Your task to perform on an android device: Open Yahoo.com Image 0: 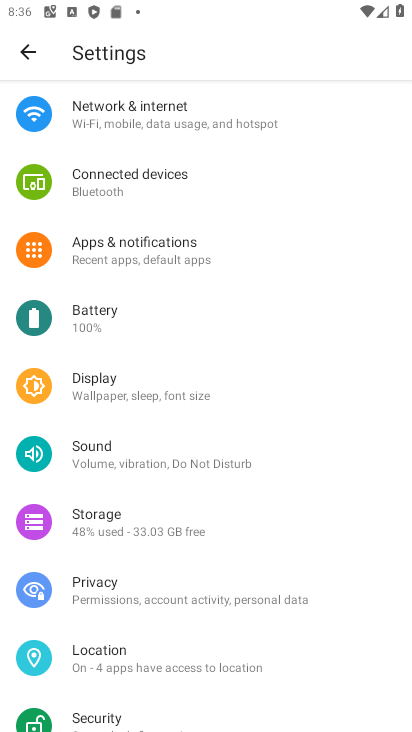
Step 0: press home button
Your task to perform on an android device: Open Yahoo.com Image 1: 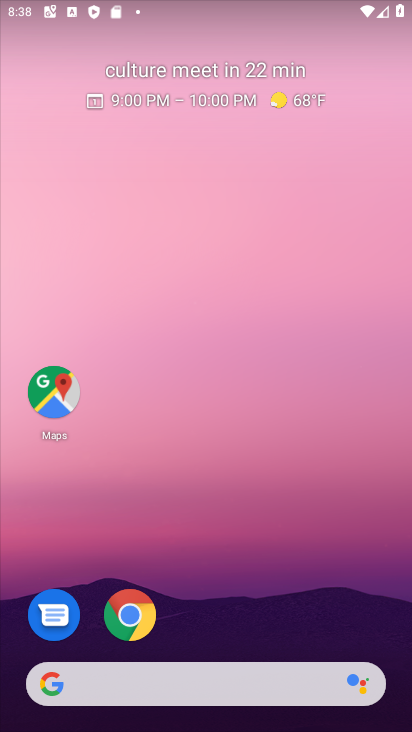
Step 1: click (116, 612)
Your task to perform on an android device: Open Yahoo.com Image 2: 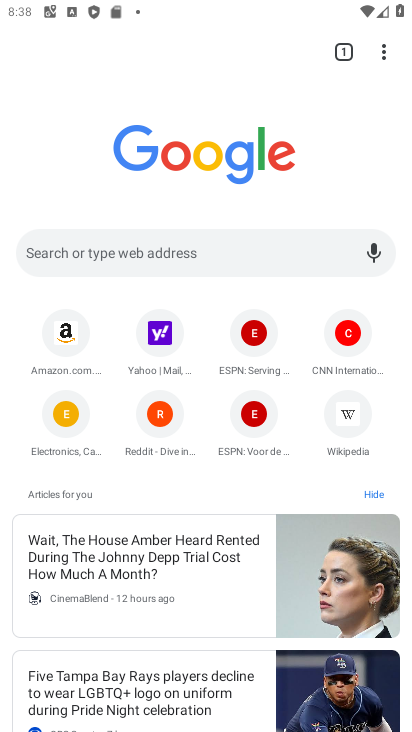
Step 2: click (205, 257)
Your task to perform on an android device: Open Yahoo.com Image 3: 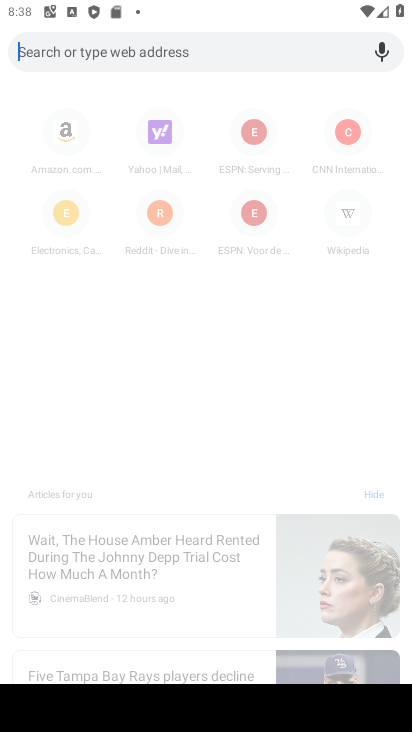
Step 3: type "Yahoo.com"
Your task to perform on an android device: Open Yahoo.com Image 4: 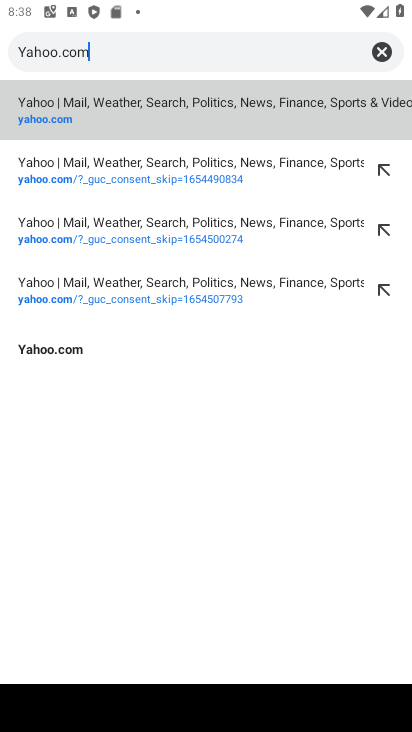
Step 4: click (49, 341)
Your task to perform on an android device: Open Yahoo.com Image 5: 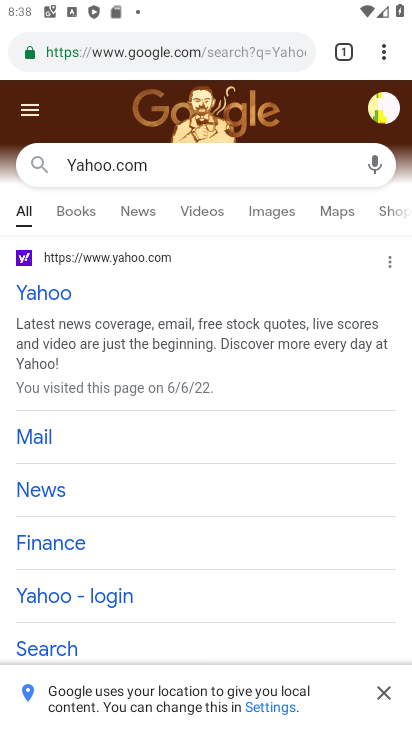
Step 5: task complete